Your task to perform on an android device: Open my contact list Image 0: 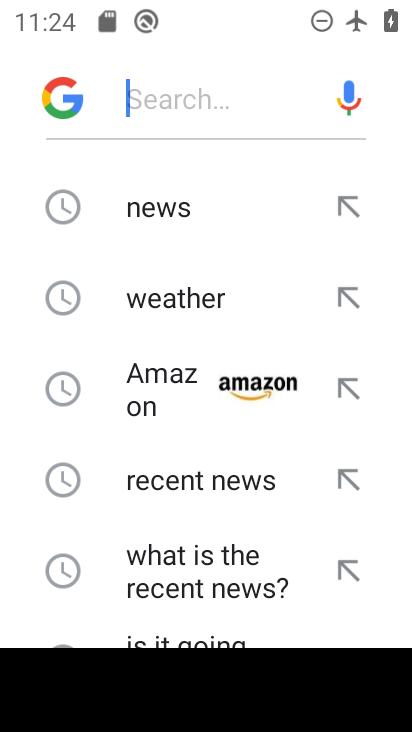
Step 0: press home button
Your task to perform on an android device: Open my contact list Image 1: 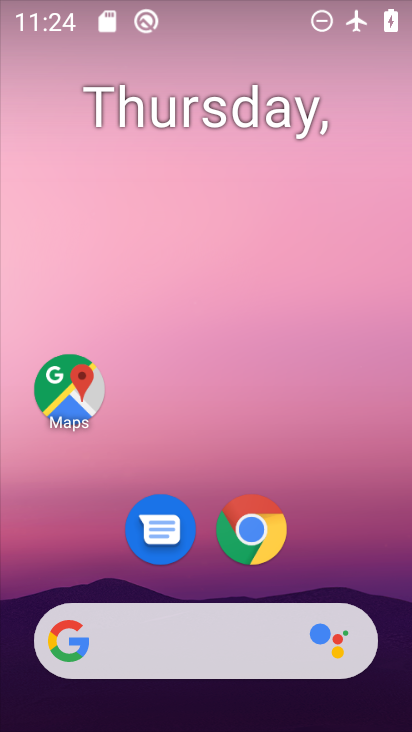
Step 1: drag from (230, 662) to (252, 3)
Your task to perform on an android device: Open my contact list Image 2: 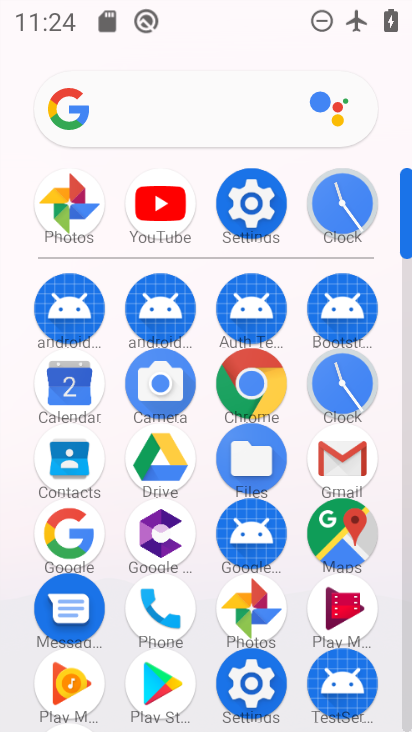
Step 2: click (73, 473)
Your task to perform on an android device: Open my contact list Image 3: 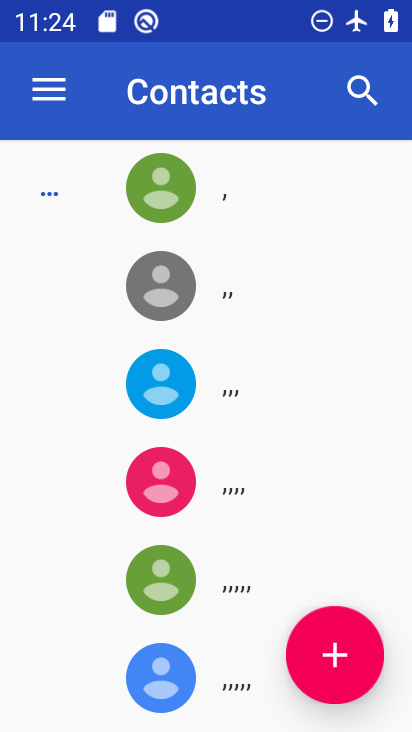
Step 3: task complete